Your task to perform on an android device: delete the emails in spam in the gmail app Image 0: 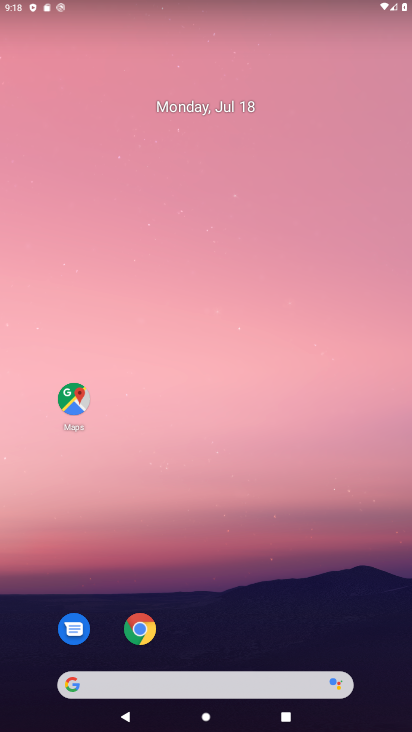
Step 0: drag from (190, 674) to (117, 256)
Your task to perform on an android device: delete the emails in spam in the gmail app Image 1: 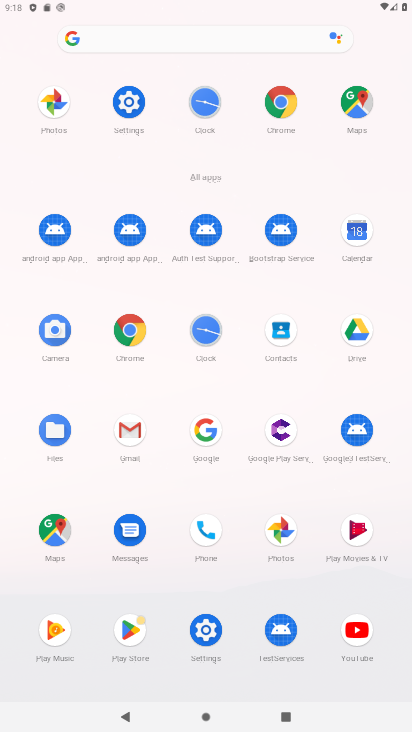
Step 1: click (130, 437)
Your task to perform on an android device: delete the emails in spam in the gmail app Image 2: 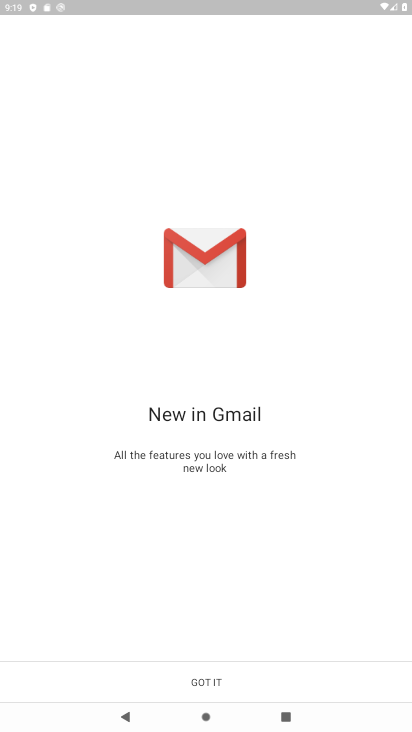
Step 2: click (202, 674)
Your task to perform on an android device: delete the emails in spam in the gmail app Image 3: 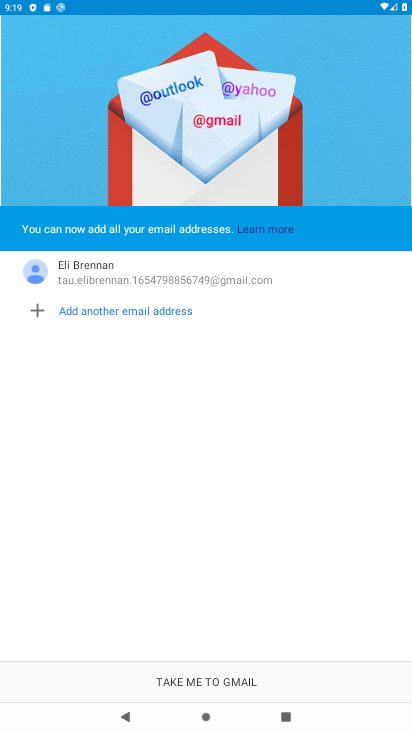
Step 3: click (198, 680)
Your task to perform on an android device: delete the emails in spam in the gmail app Image 4: 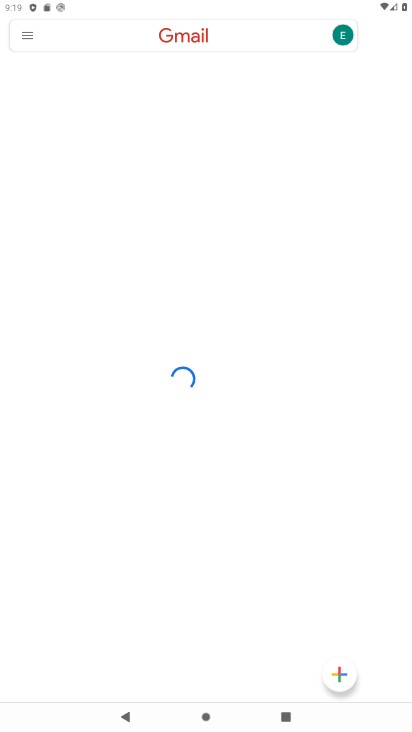
Step 4: click (33, 35)
Your task to perform on an android device: delete the emails in spam in the gmail app Image 5: 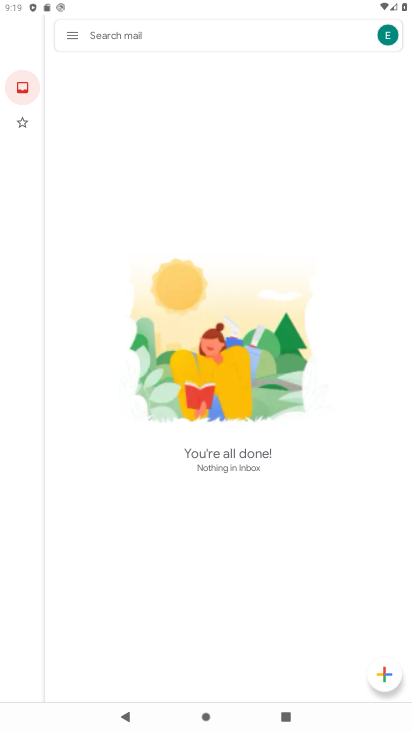
Step 5: click (71, 39)
Your task to perform on an android device: delete the emails in spam in the gmail app Image 6: 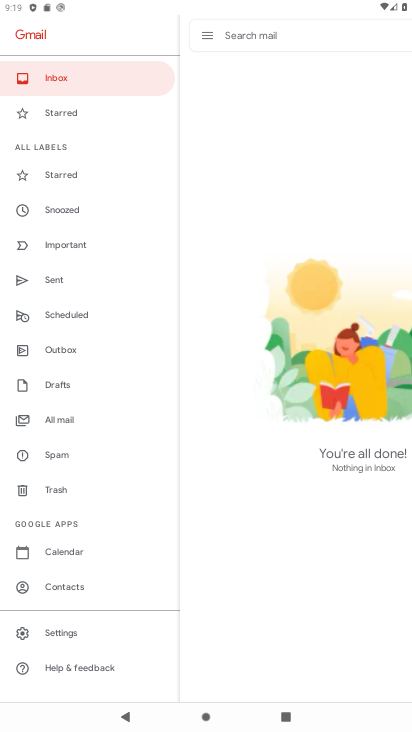
Step 6: click (78, 452)
Your task to perform on an android device: delete the emails in spam in the gmail app Image 7: 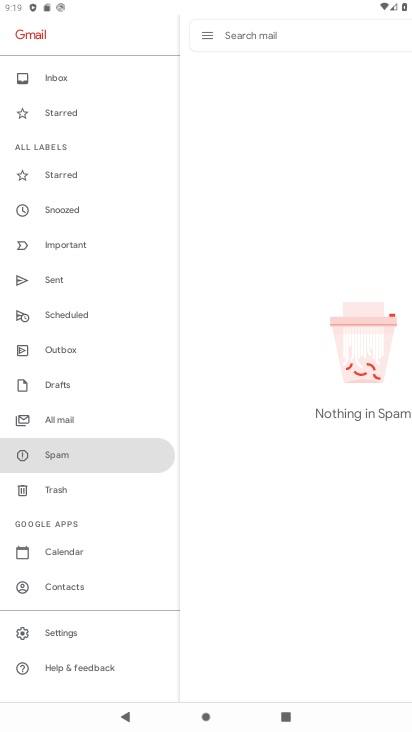
Step 7: task complete